Your task to perform on an android device: Open Chrome and go to settings Image 0: 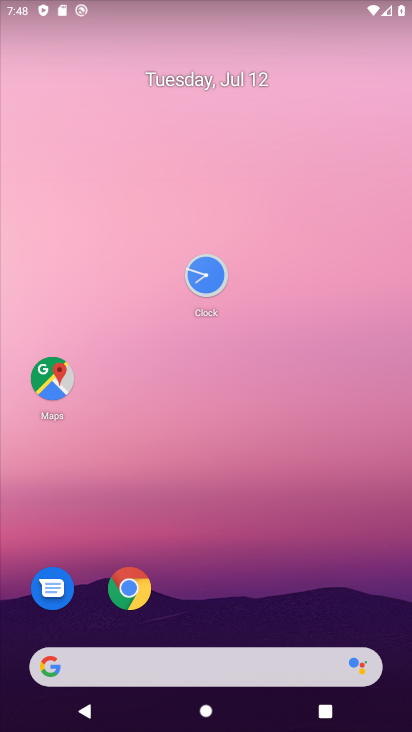
Step 0: drag from (290, 639) to (295, 226)
Your task to perform on an android device: Open Chrome and go to settings Image 1: 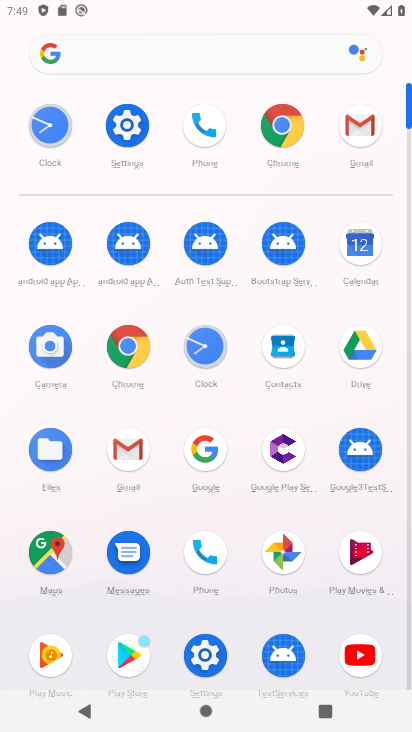
Step 1: click (269, 138)
Your task to perform on an android device: Open Chrome and go to settings Image 2: 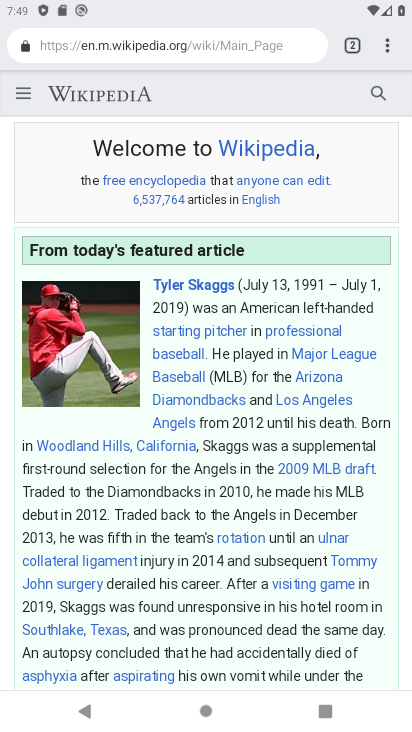
Step 2: task complete